Your task to perform on an android device: install app "Booking.com: Hotels and more" Image 0: 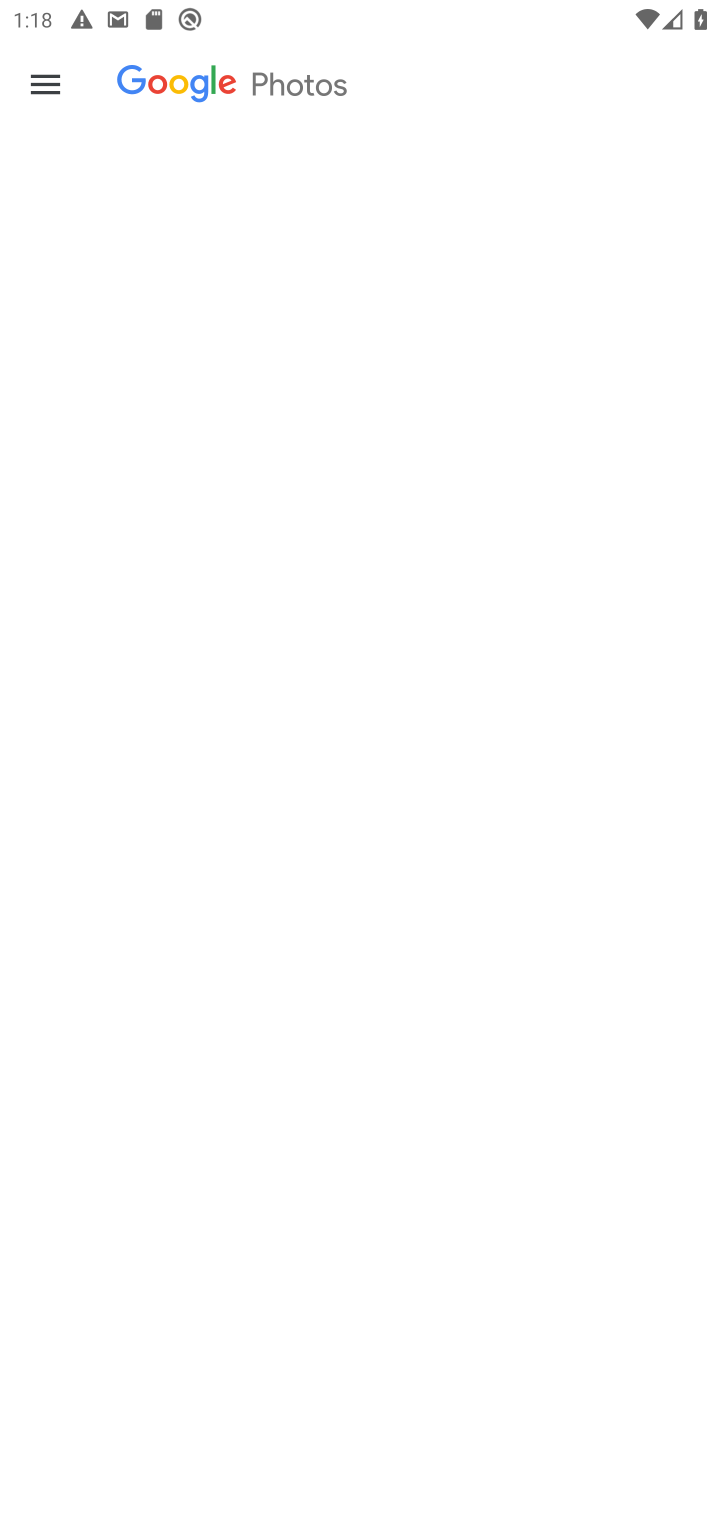
Step 0: press home button
Your task to perform on an android device: install app "Booking.com: Hotels and more" Image 1: 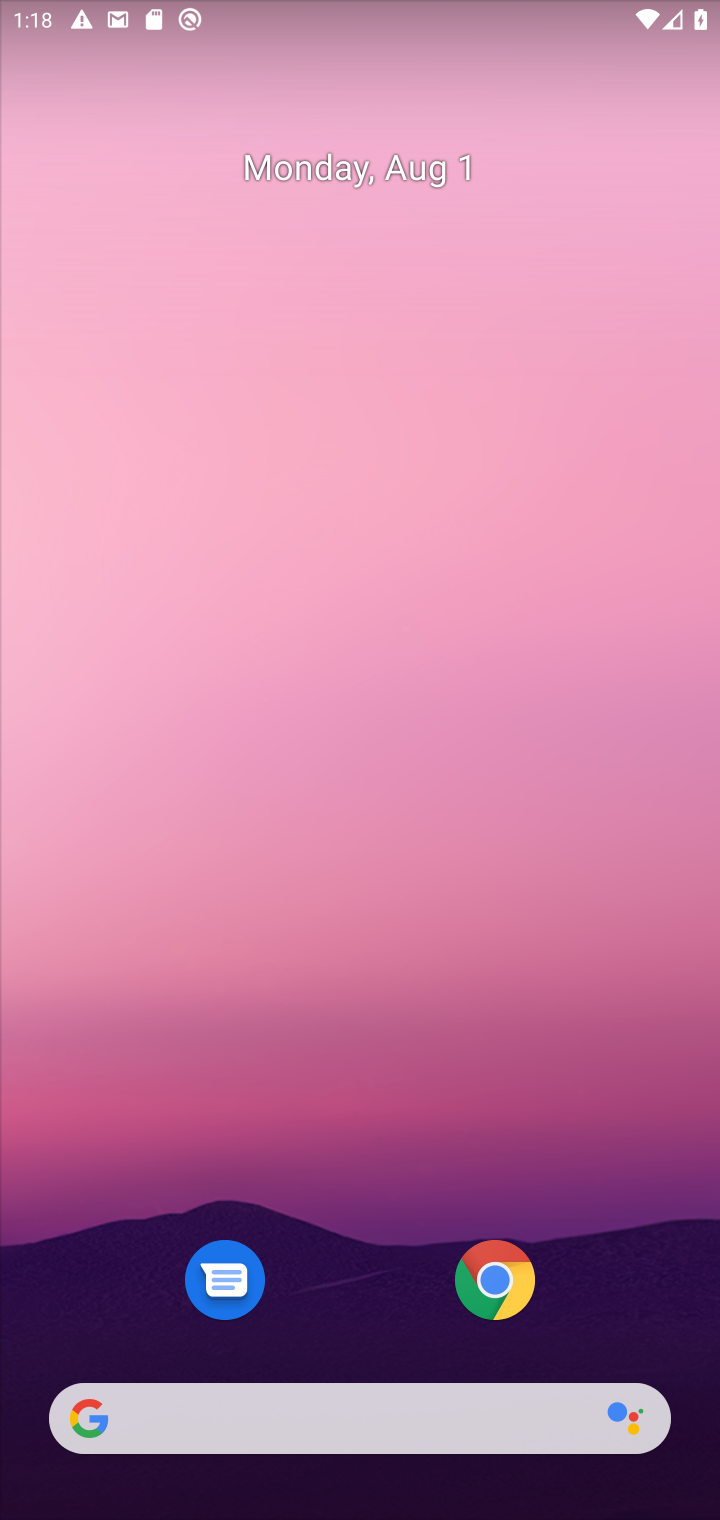
Step 1: drag from (396, 679) to (463, 169)
Your task to perform on an android device: install app "Booking.com: Hotels and more" Image 2: 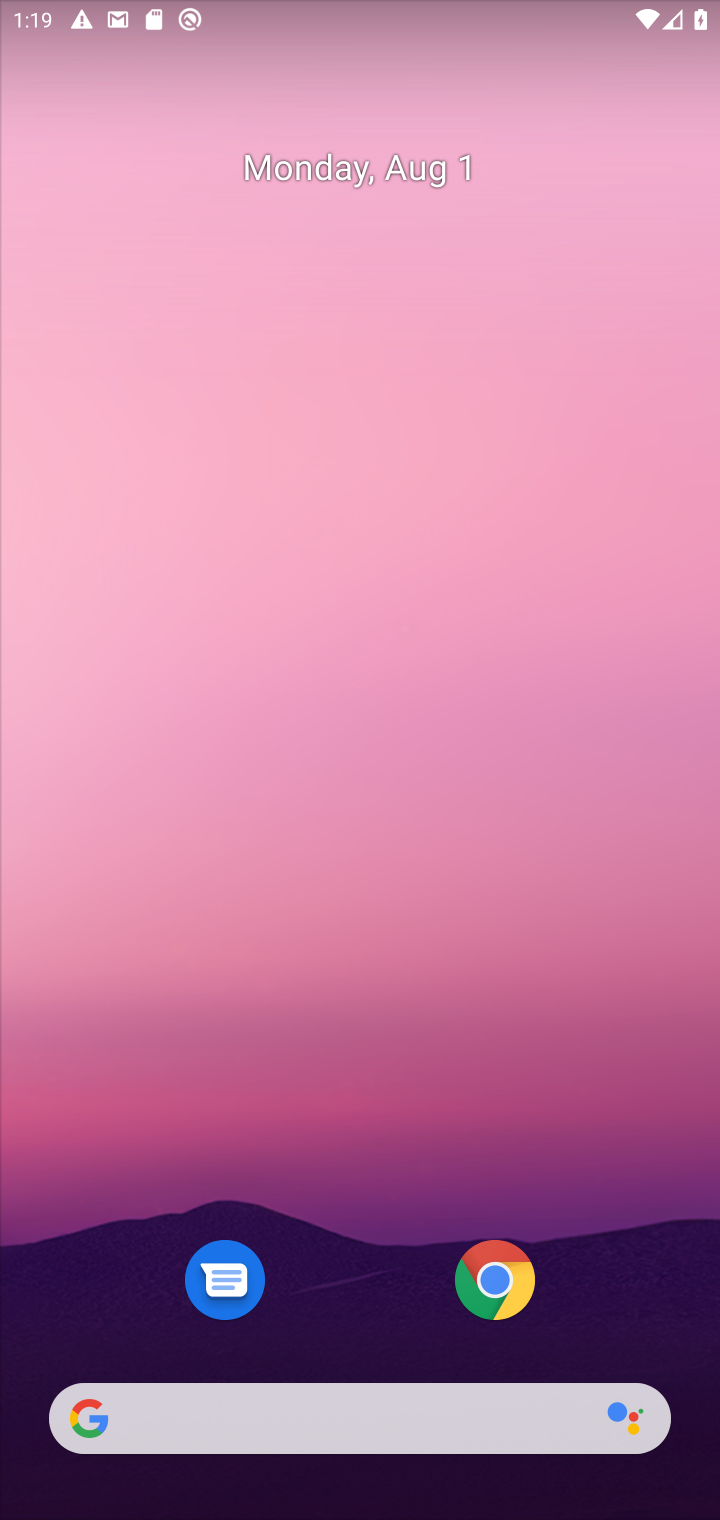
Step 2: drag from (348, 1281) to (360, 367)
Your task to perform on an android device: install app "Booking.com: Hotels and more" Image 3: 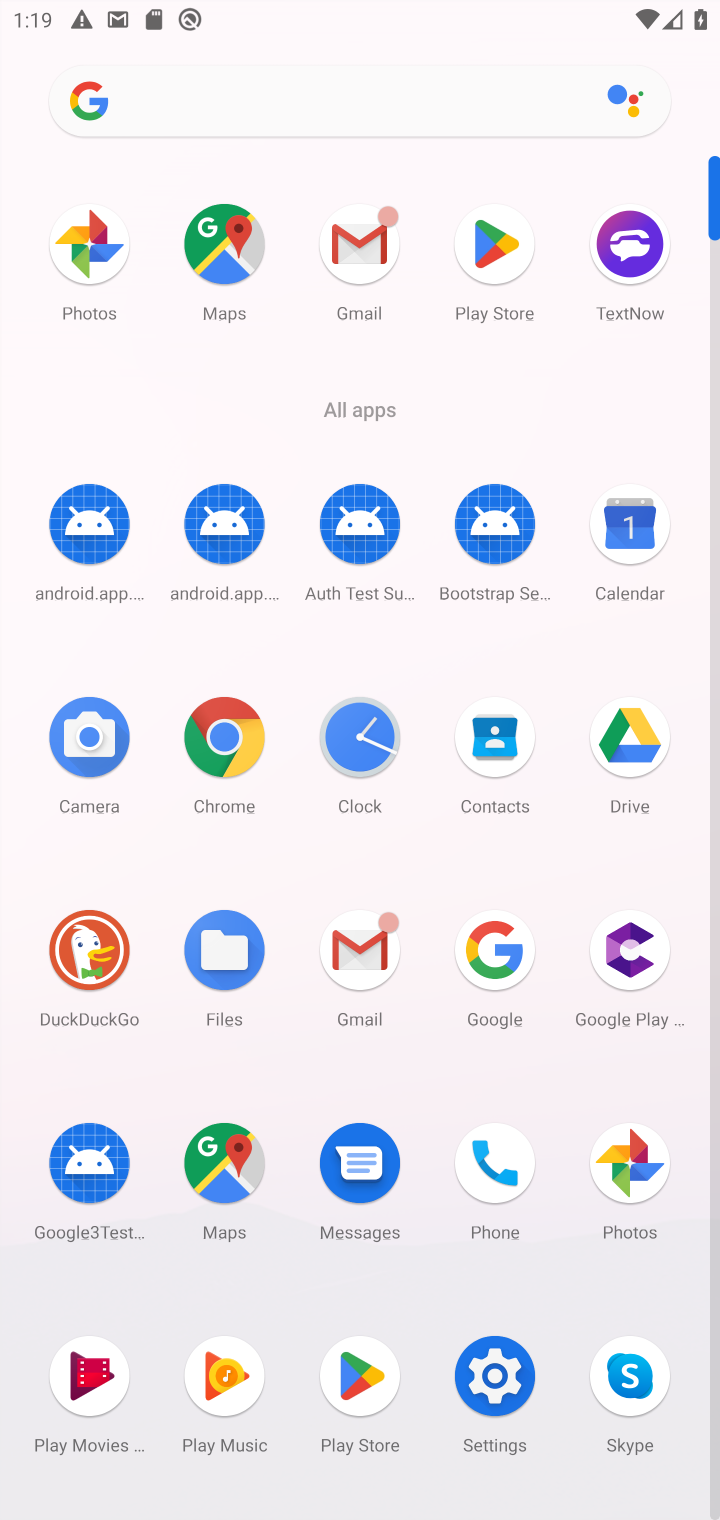
Step 3: click (493, 262)
Your task to perform on an android device: install app "Booking.com: Hotels and more" Image 4: 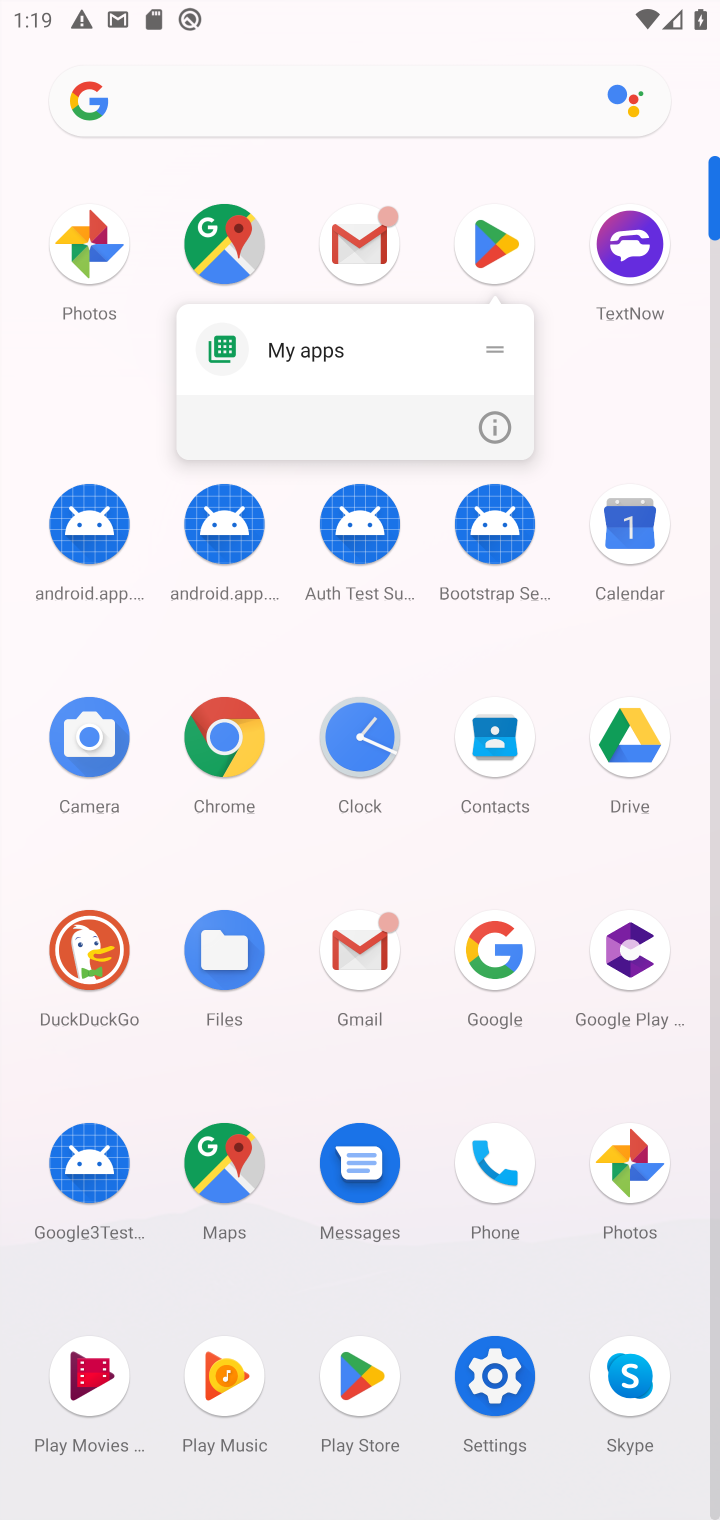
Step 4: click (503, 270)
Your task to perform on an android device: install app "Booking.com: Hotels and more" Image 5: 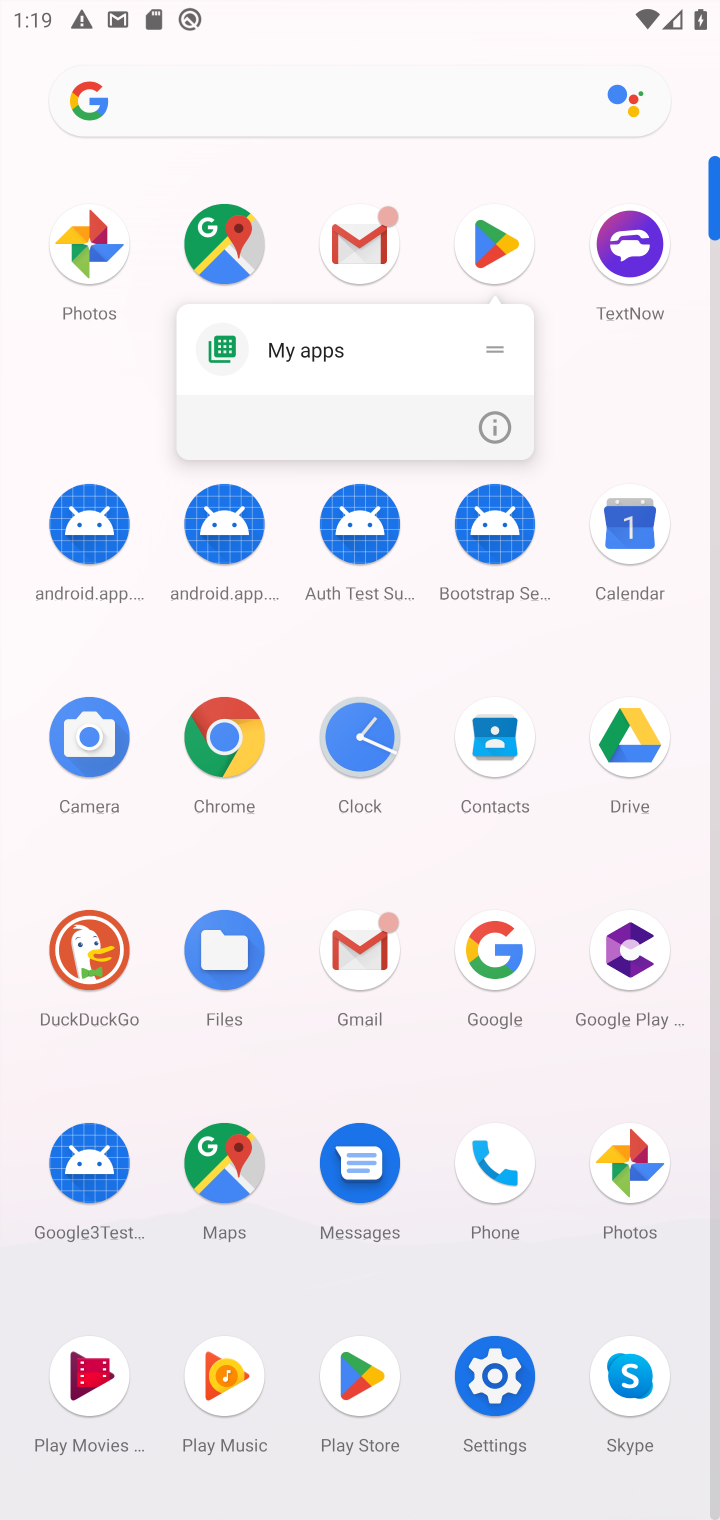
Step 5: click (506, 235)
Your task to perform on an android device: install app "Booking.com: Hotels and more" Image 6: 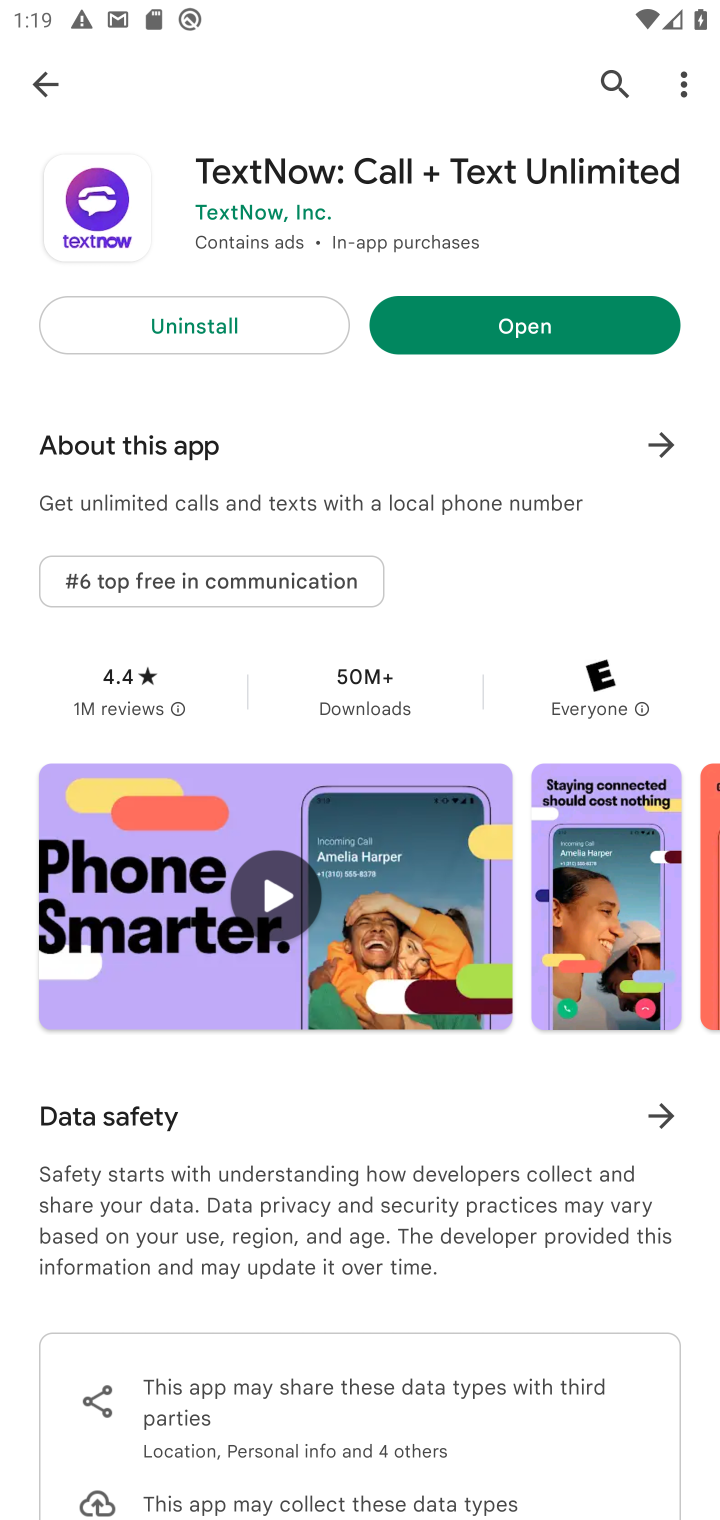
Step 6: click (604, 75)
Your task to perform on an android device: install app "Booking.com: Hotels and more" Image 7: 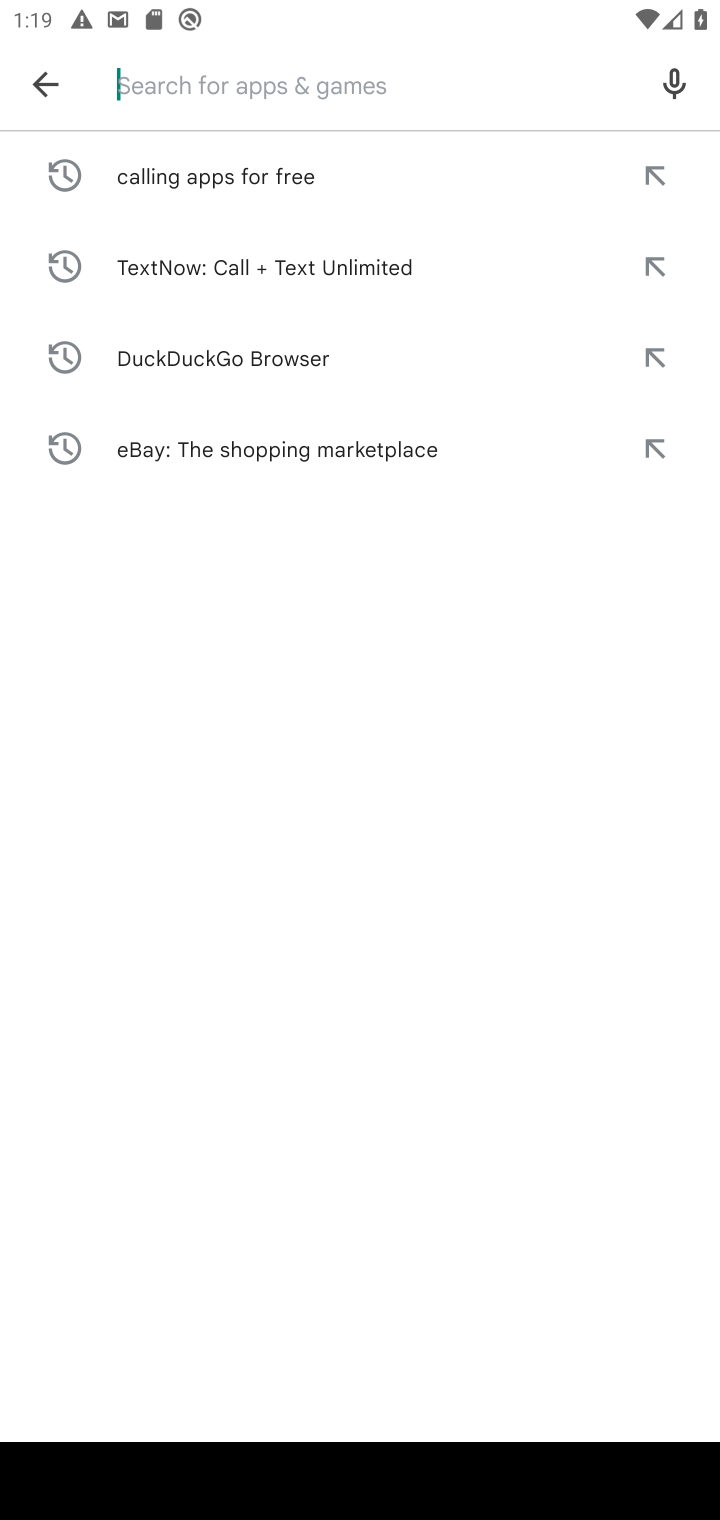
Step 7: type "Booking.com: Hotels and more"
Your task to perform on an android device: install app "Booking.com: Hotels and more" Image 8: 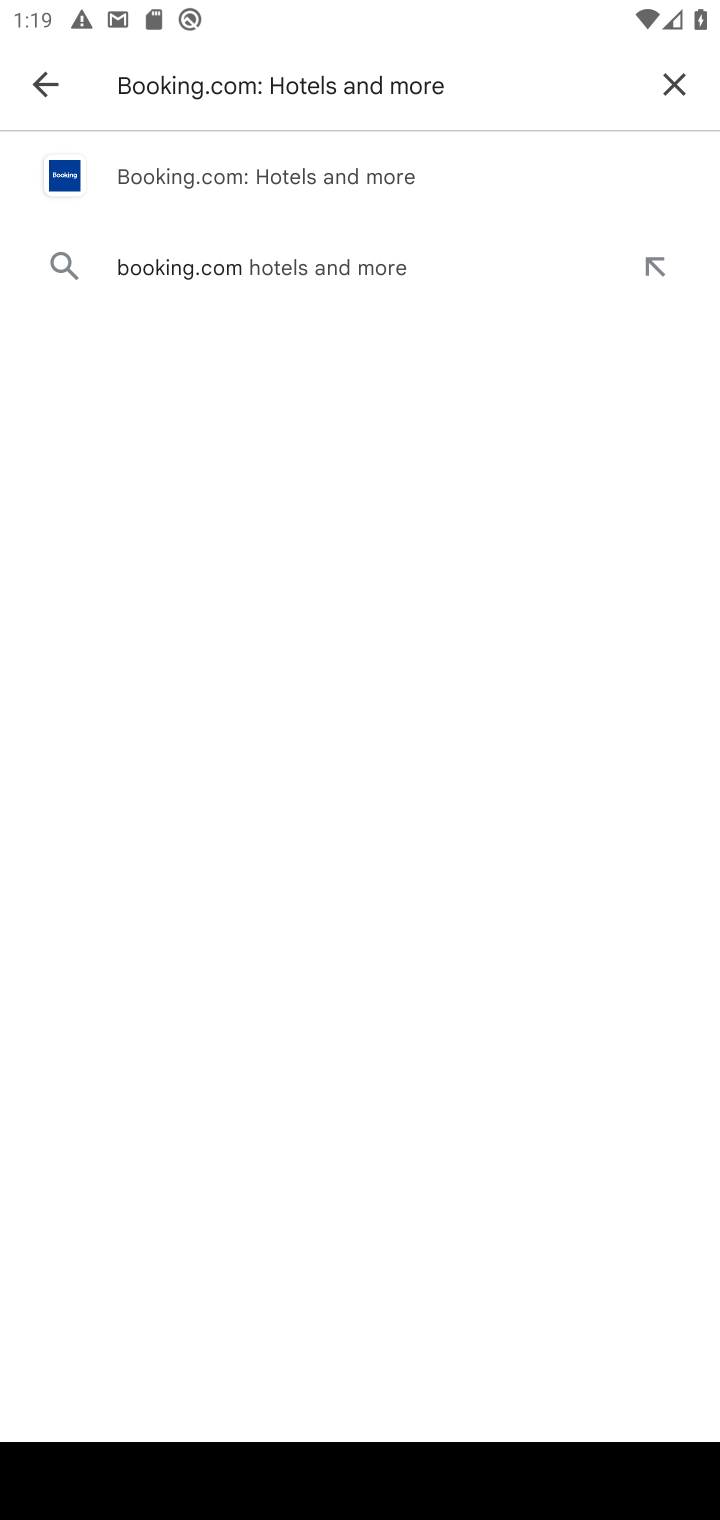
Step 8: press enter
Your task to perform on an android device: install app "Booking.com: Hotels and more" Image 9: 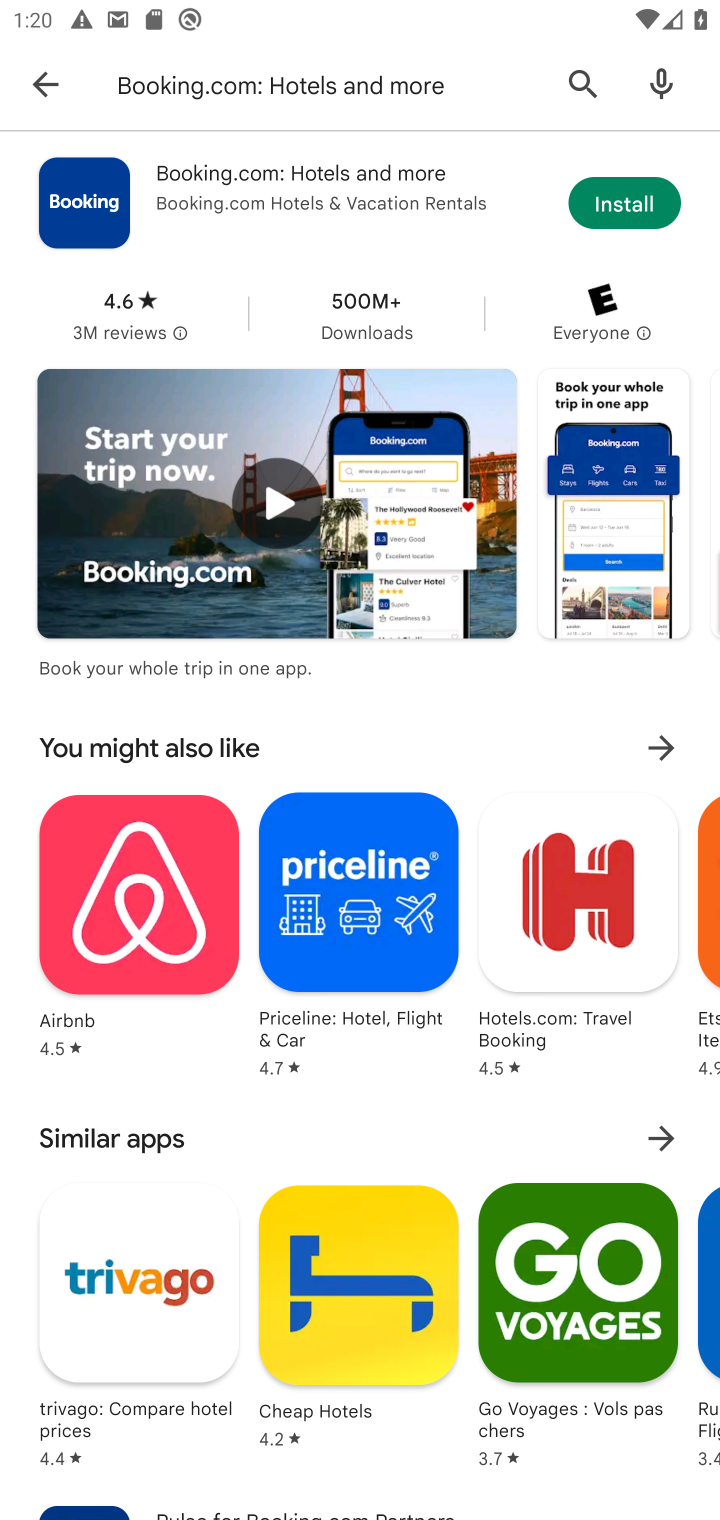
Step 9: click (629, 190)
Your task to perform on an android device: install app "Booking.com: Hotels and more" Image 10: 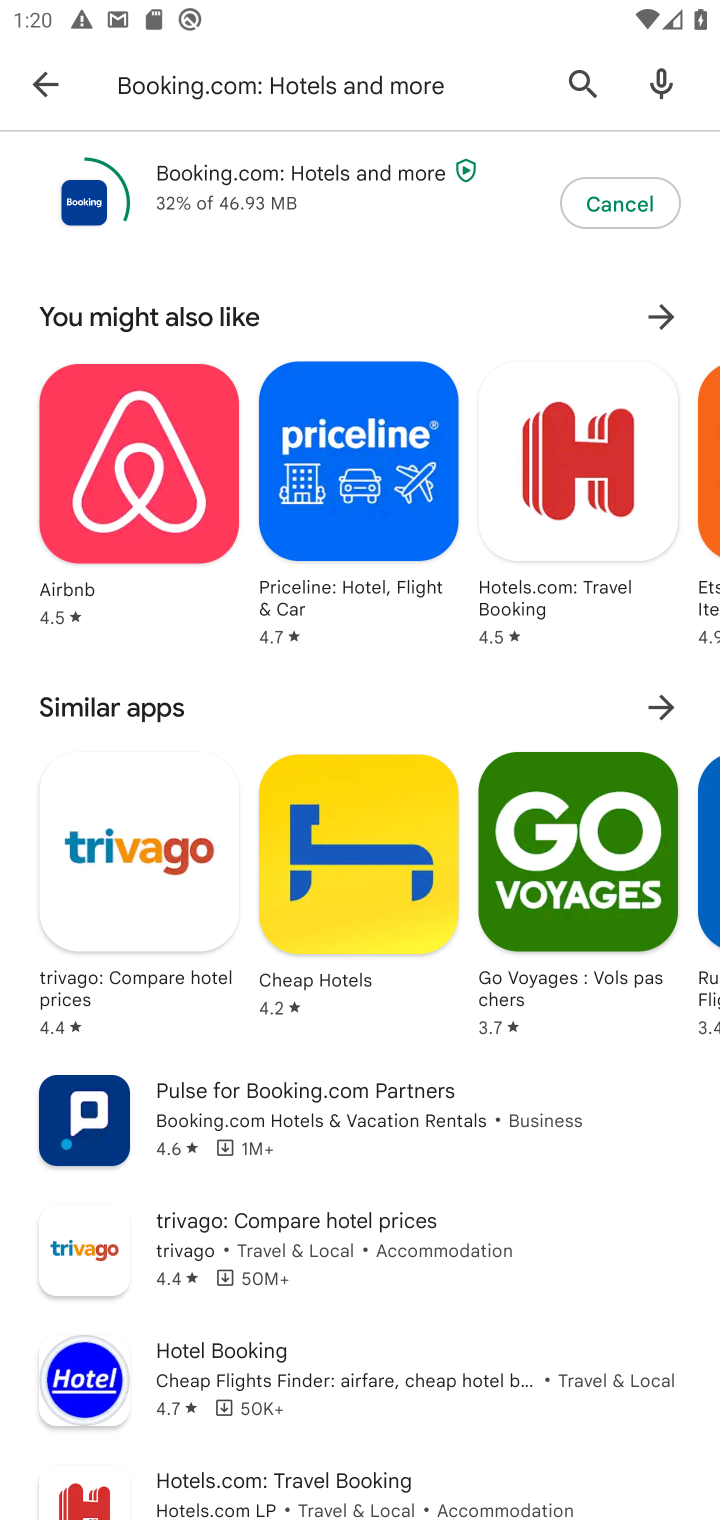
Step 10: task complete